Your task to perform on an android device: Show me popular videos on Youtube Image 0: 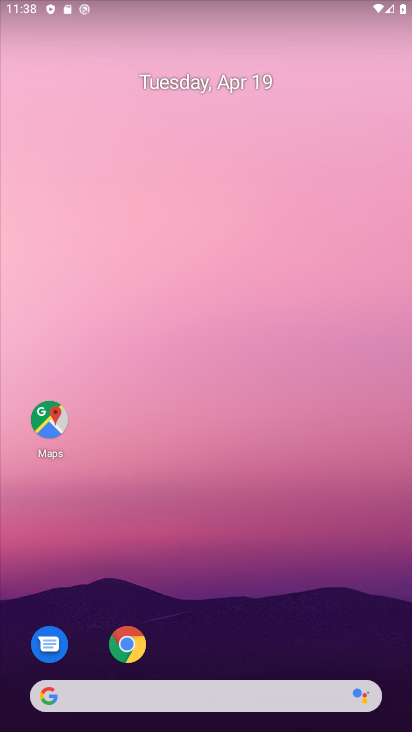
Step 0: drag from (299, 605) to (335, 133)
Your task to perform on an android device: Show me popular videos on Youtube Image 1: 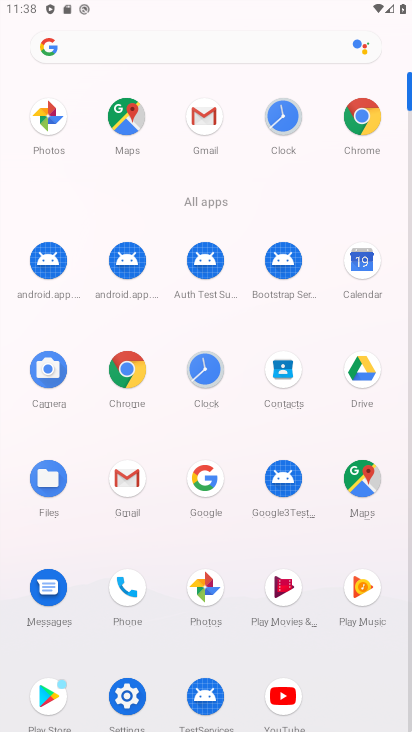
Step 1: click (283, 693)
Your task to perform on an android device: Show me popular videos on Youtube Image 2: 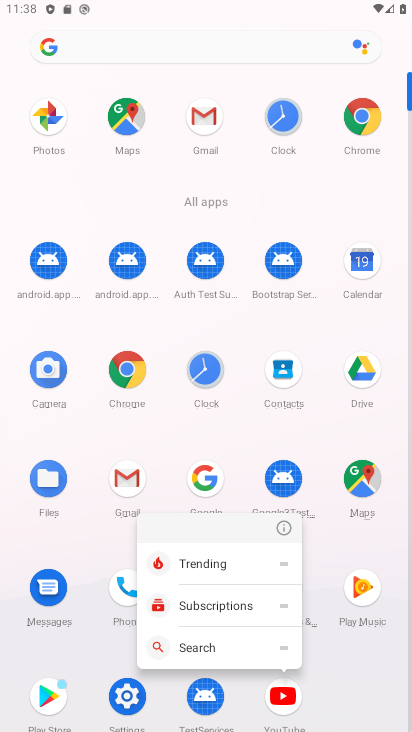
Step 2: click (283, 693)
Your task to perform on an android device: Show me popular videos on Youtube Image 3: 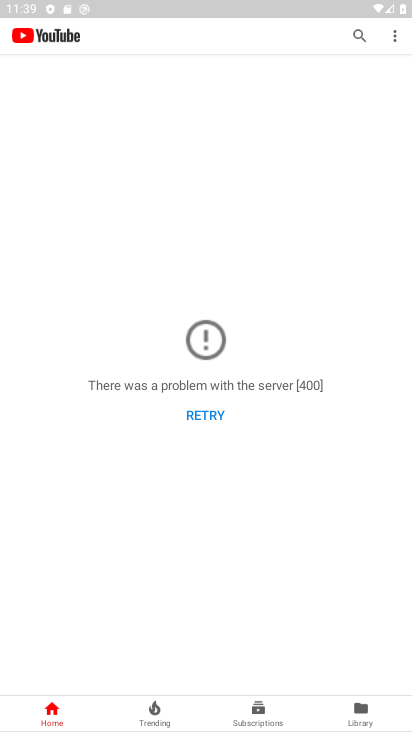
Step 3: click (220, 416)
Your task to perform on an android device: Show me popular videos on Youtube Image 4: 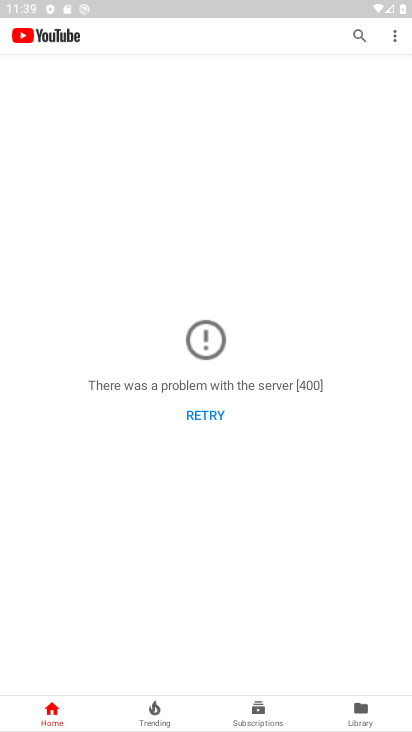
Step 4: task complete